Your task to perform on an android device: Open calendar and show me the fourth week of next month Image 0: 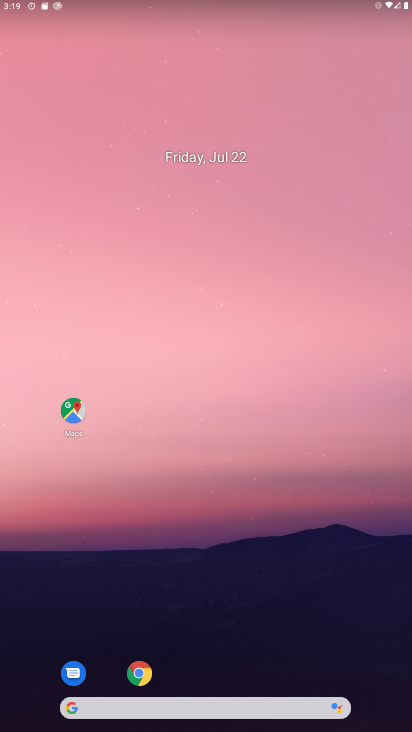
Step 0: drag from (186, 678) to (185, 302)
Your task to perform on an android device: Open calendar and show me the fourth week of next month Image 1: 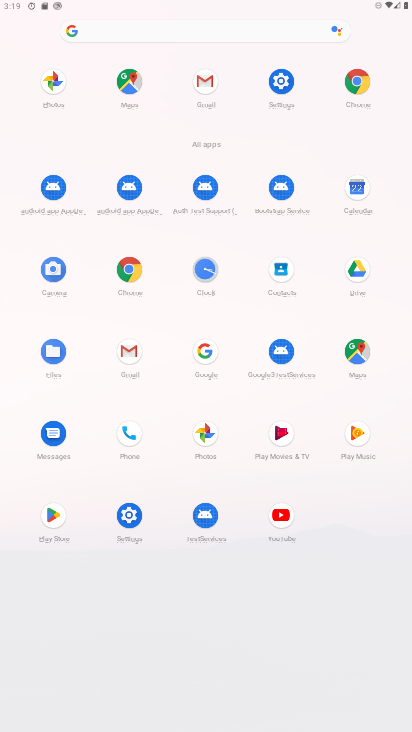
Step 1: click (352, 187)
Your task to perform on an android device: Open calendar and show me the fourth week of next month Image 2: 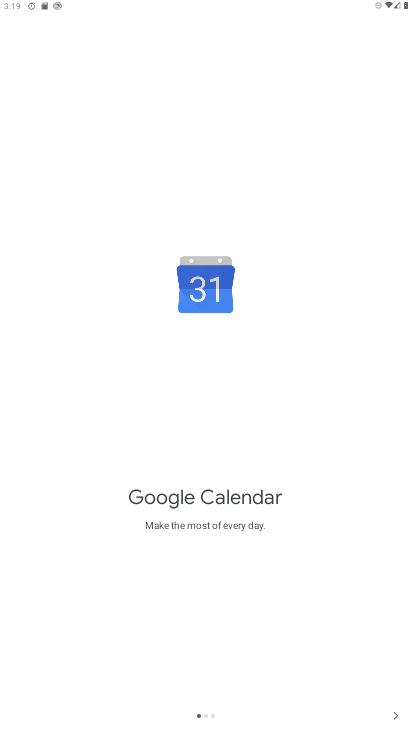
Step 2: drag from (203, 635) to (192, 335)
Your task to perform on an android device: Open calendar and show me the fourth week of next month Image 3: 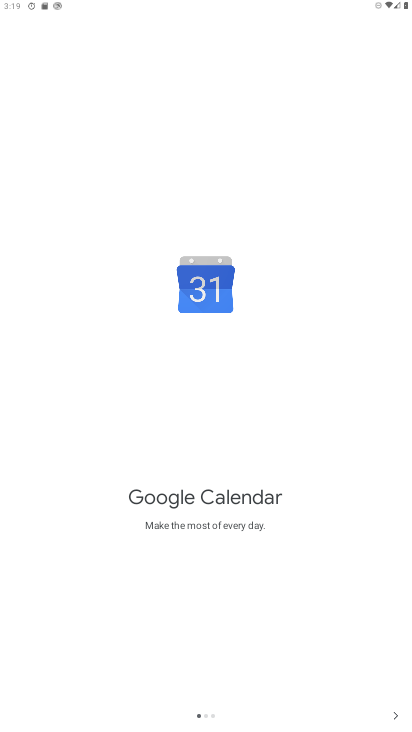
Step 3: click (386, 707)
Your task to perform on an android device: Open calendar and show me the fourth week of next month Image 4: 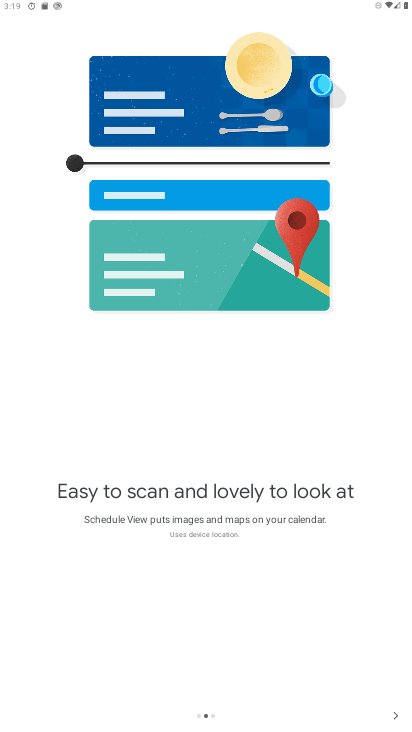
Step 4: click (386, 705)
Your task to perform on an android device: Open calendar and show me the fourth week of next month Image 5: 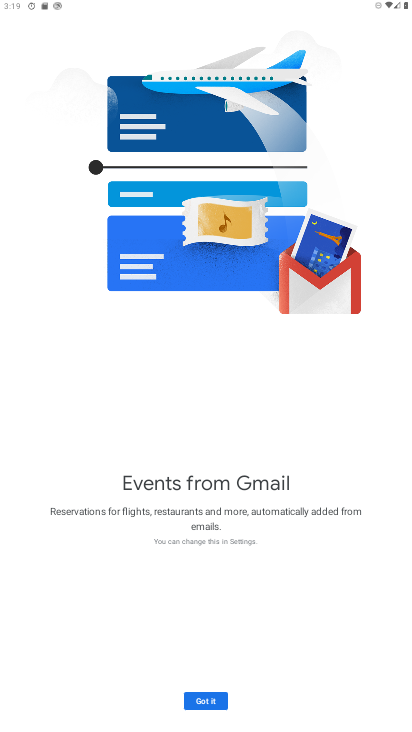
Step 5: click (392, 709)
Your task to perform on an android device: Open calendar and show me the fourth week of next month Image 6: 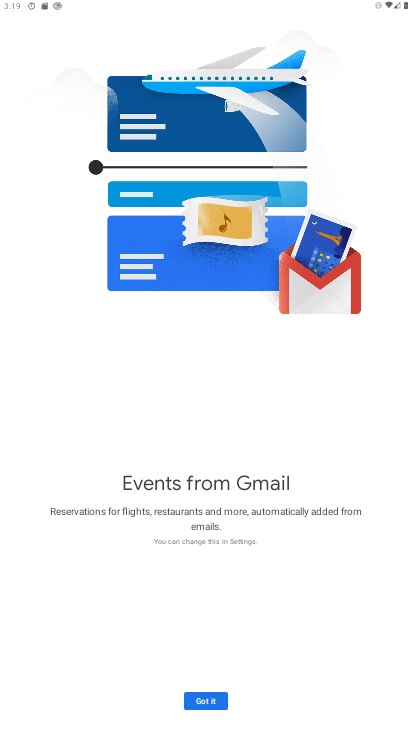
Step 6: click (205, 695)
Your task to perform on an android device: Open calendar and show me the fourth week of next month Image 7: 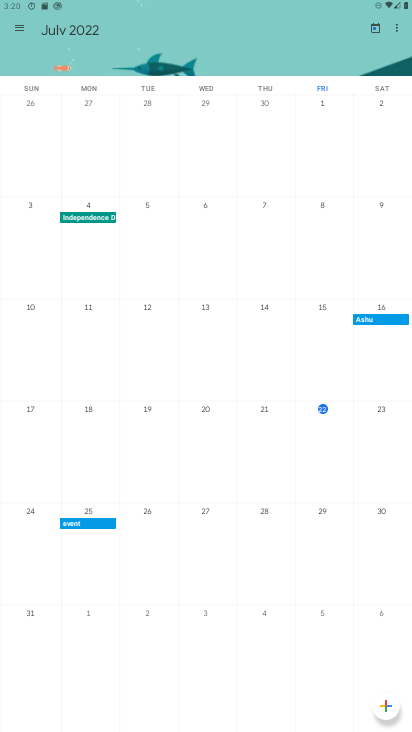
Step 7: click (377, 30)
Your task to perform on an android device: Open calendar and show me the fourth week of next month Image 8: 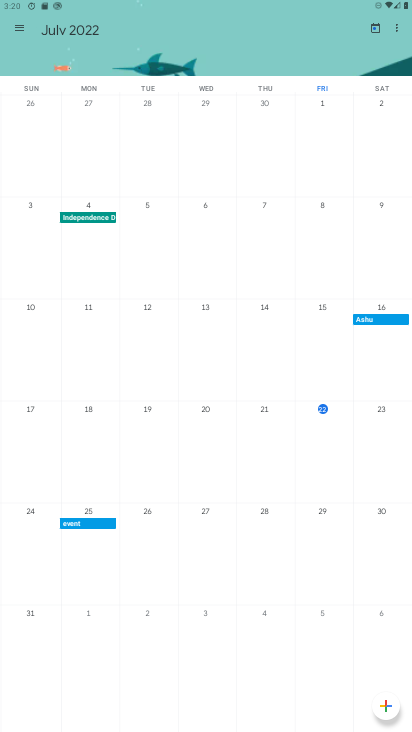
Step 8: drag from (300, 563) to (0, 493)
Your task to perform on an android device: Open calendar and show me the fourth week of next month Image 9: 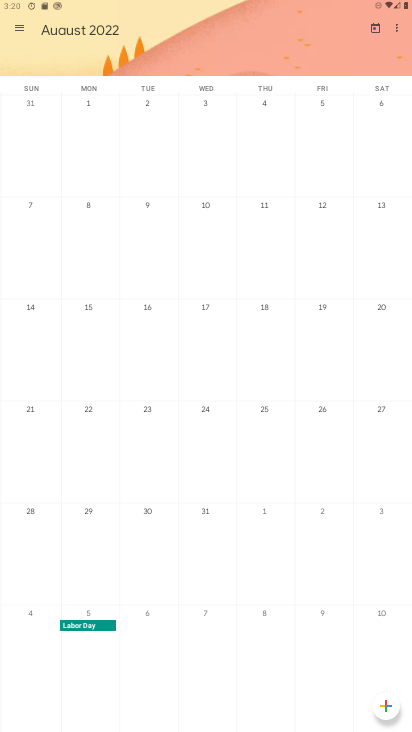
Step 9: click (201, 406)
Your task to perform on an android device: Open calendar and show me the fourth week of next month Image 10: 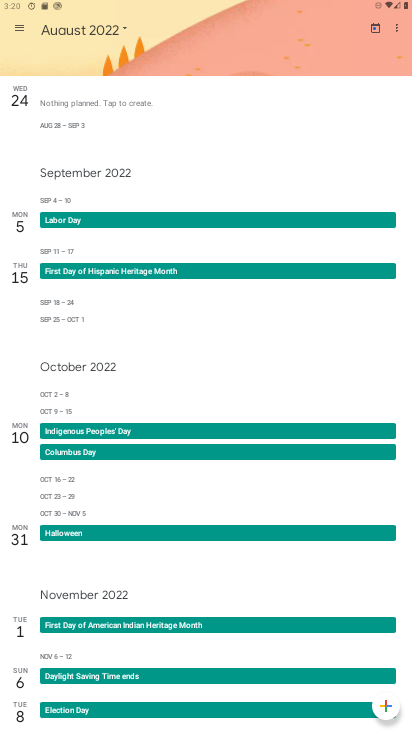
Step 10: task complete